Your task to perform on an android device: open chrome privacy settings Image 0: 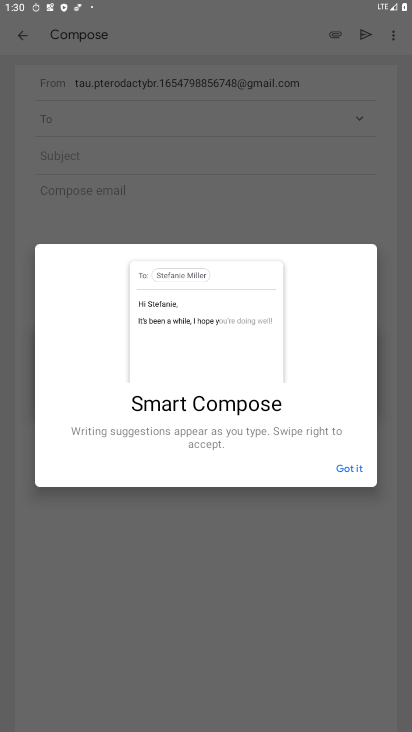
Step 0: press home button
Your task to perform on an android device: open chrome privacy settings Image 1: 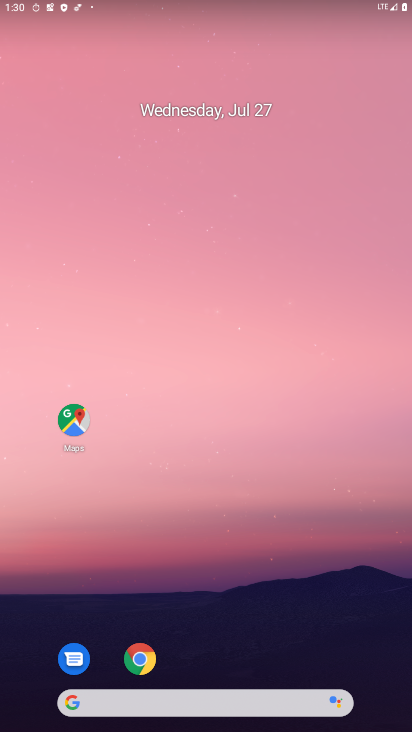
Step 1: click (152, 652)
Your task to perform on an android device: open chrome privacy settings Image 2: 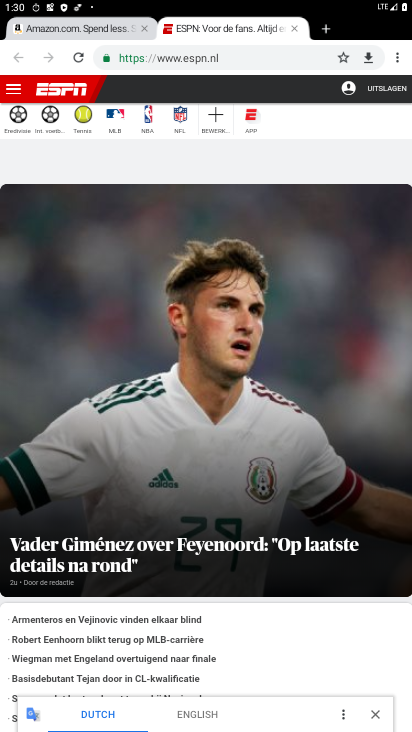
Step 2: click (392, 60)
Your task to perform on an android device: open chrome privacy settings Image 3: 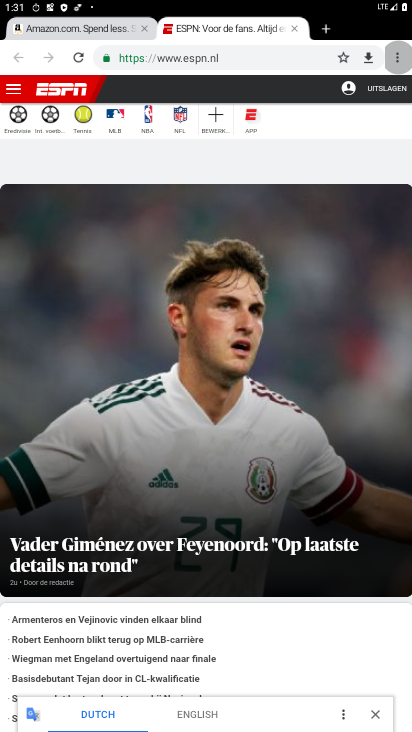
Step 3: drag from (395, 57) to (284, 349)
Your task to perform on an android device: open chrome privacy settings Image 4: 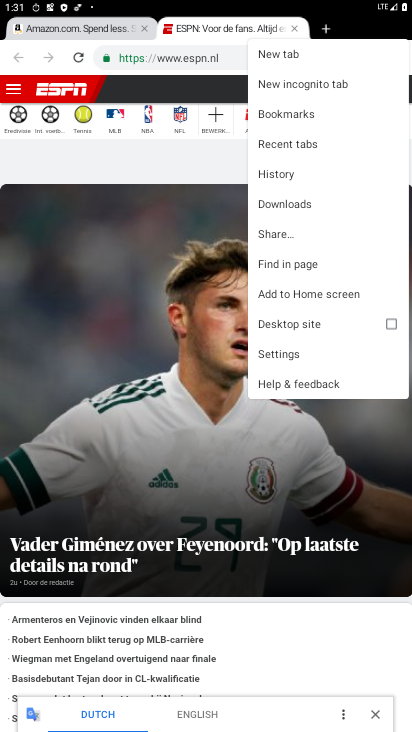
Step 4: click (284, 350)
Your task to perform on an android device: open chrome privacy settings Image 5: 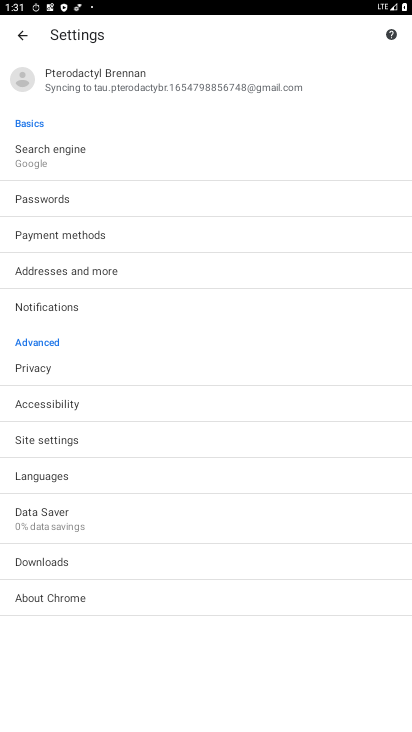
Step 5: click (42, 364)
Your task to perform on an android device: open chrome privacy settings Image 6: 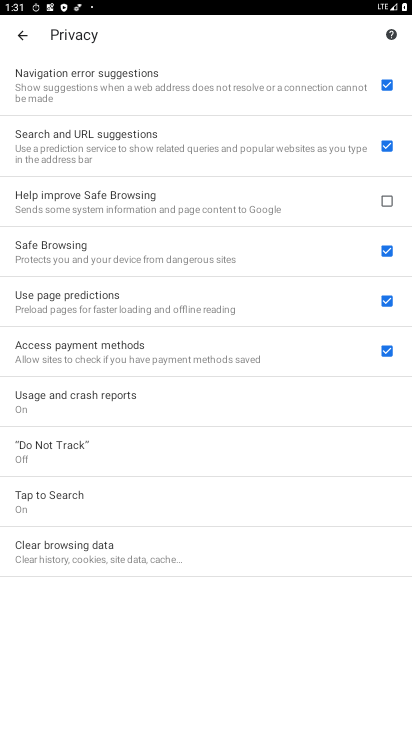
Step 6: task complete